Your task to perform on an android device: turn off improve location accuracy Image 0: 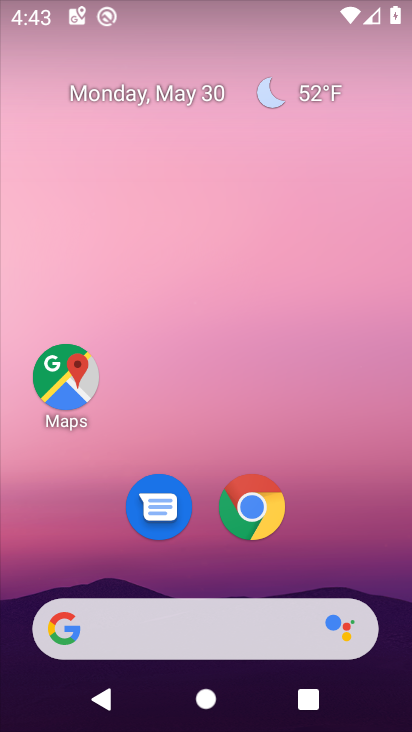
Step 0: press home button
Your task to perform on an android device: turn off improve location accuracy Image 1: 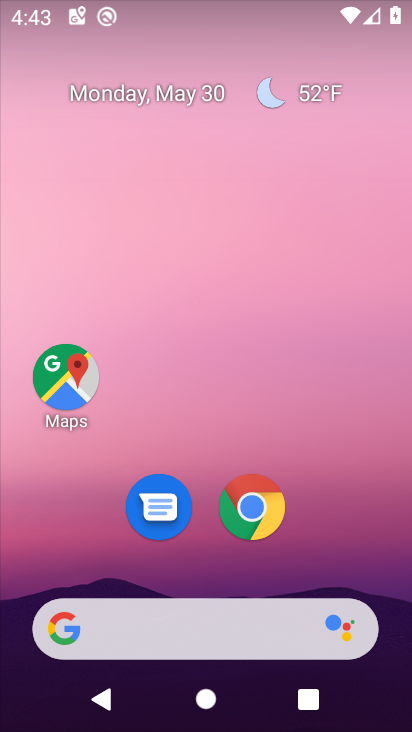
Step 1: drag from (378, 563) to (398, 52)
Your task to perform on an android device: turn off improve location accuracy Image 2: 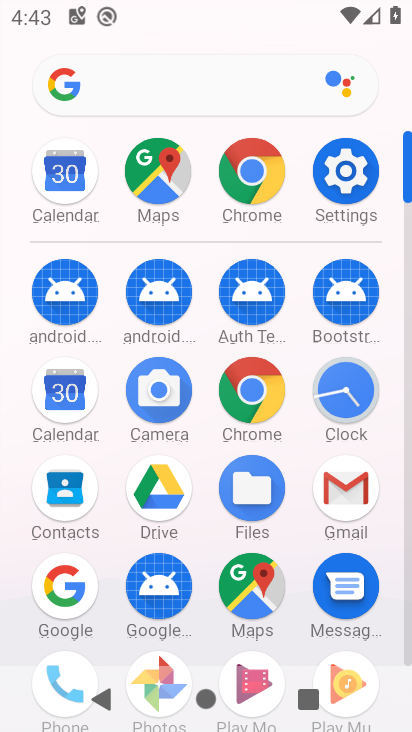
Step 2: click (346, 136)
Your task to perform on an android device: turn off improve location accuracy Image 3: 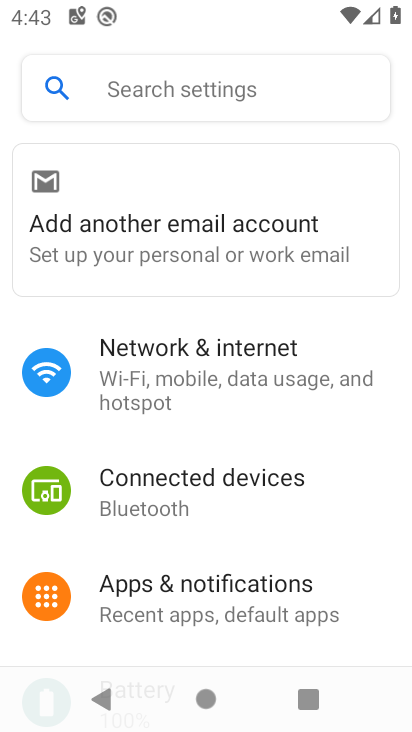
Step 3: drag from (266, 606) to (250, 102)
Your task to perform on an android device: turn off improve location accuracy Image 4: 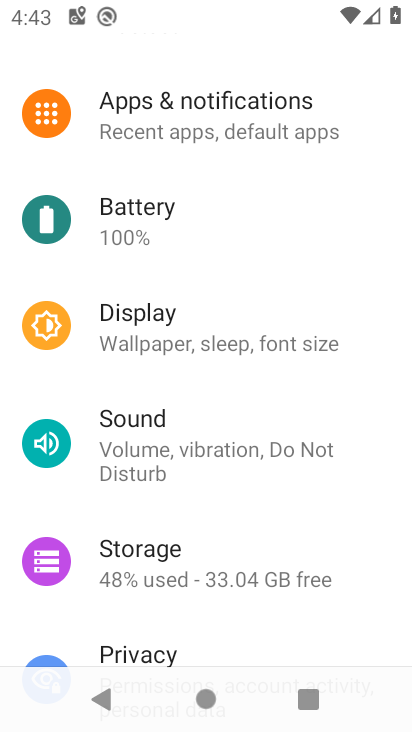
Step 4: drag from (250, 599) to (252, 236)
Your task to perform on an android device: turn off improve location accuracy Image 5: 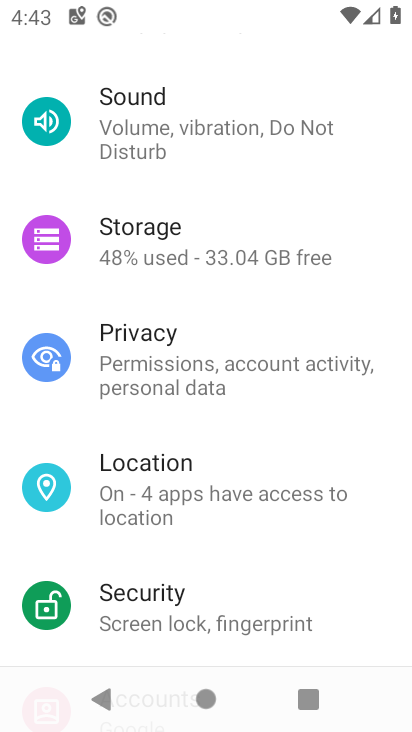
Step 5: click (238, 456)
Your task to perform on an android device: turn off improve location accuracy Image 6: 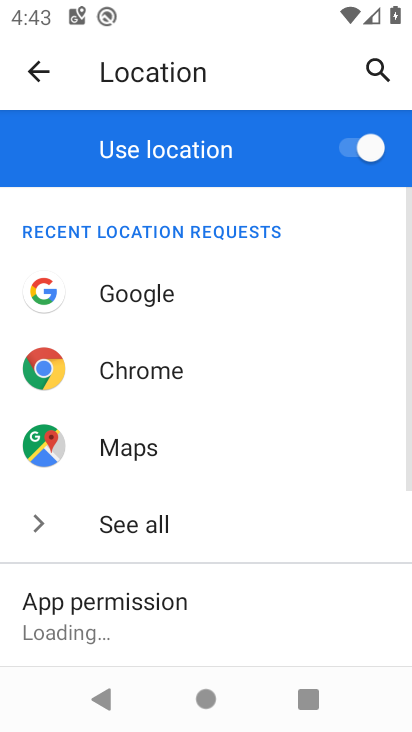
Step 6: drag from (246, 601) to (230, 226)
Your task to perform on an android device: turn off improve location accuracy Image 7: 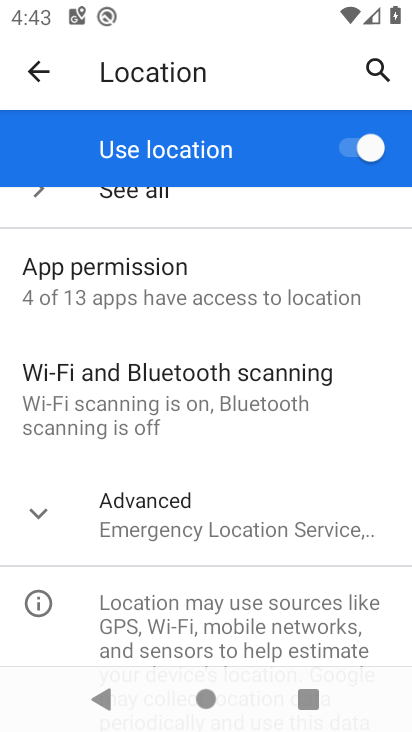
Step 7: click (122, 491)
Your task to perform on an android device: turn off improve location accuracy Image 8: 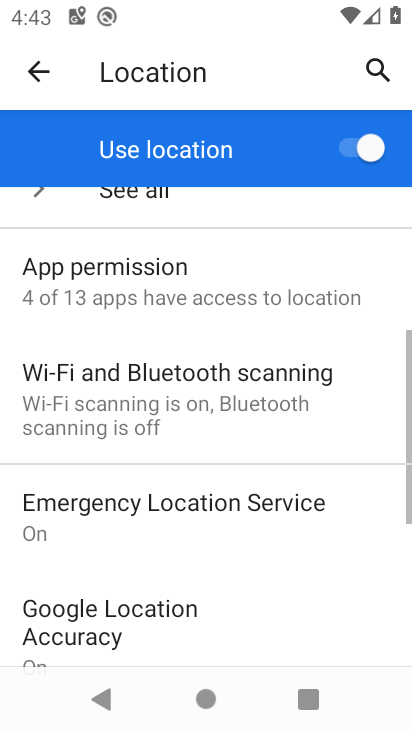
Step 8: drag from (296, 639) to (295, 328)
Your task to perform on an android device: turn off improve location accuracy Image 9: 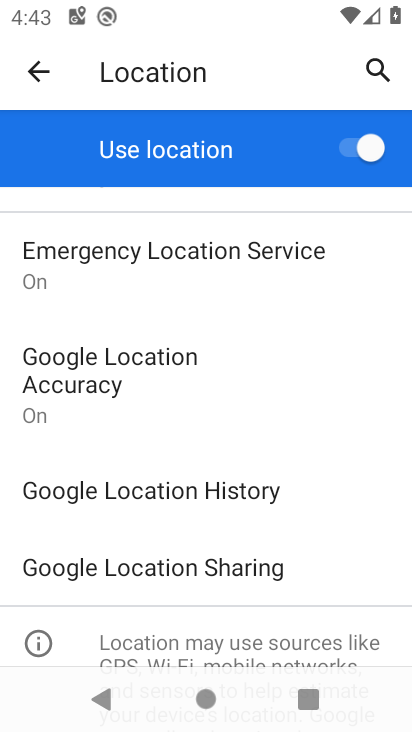
Step 9: click (97, 360)
Your task to perform on an android device: turn off improve location accuracy Image 10: 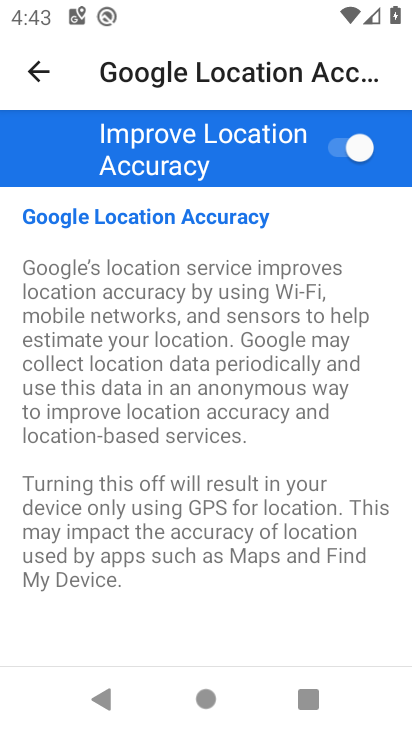
Step 10: click (230, 173)
Your task to perform on an android device: turn off improve location accuracy Image 11: 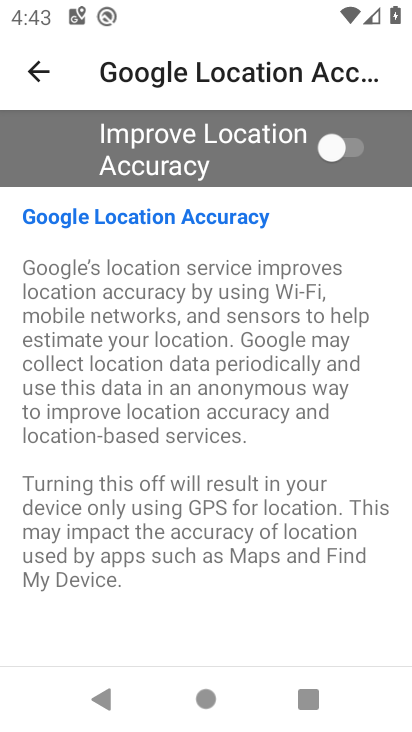
Step 11: task complete